Your task to perform on an android device: empty trash in the gmail app Image 0: 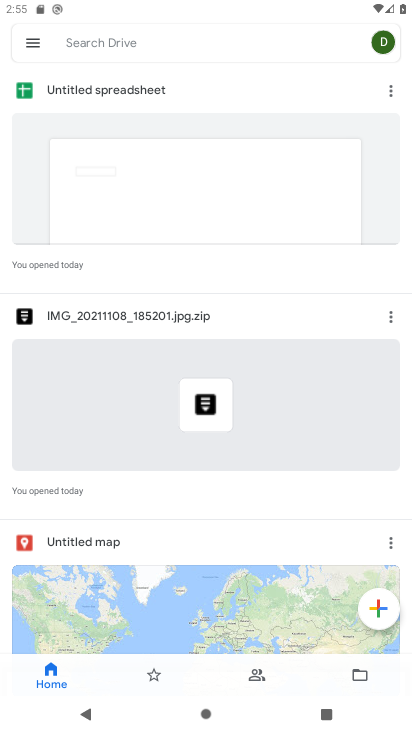
Step 0: press home button
Your task to perform on an android device: empty trash in the gmail app Image 1: 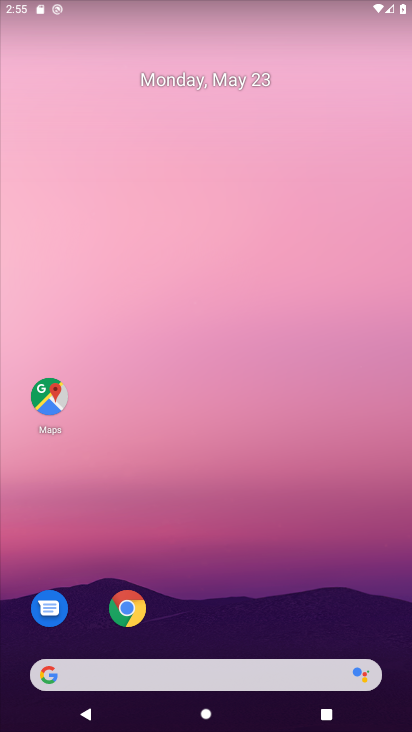
Step 1: drag from (212, 168) to (248, 43)
Your task to perform on an android device: empty trash in the gmail app Image 2: 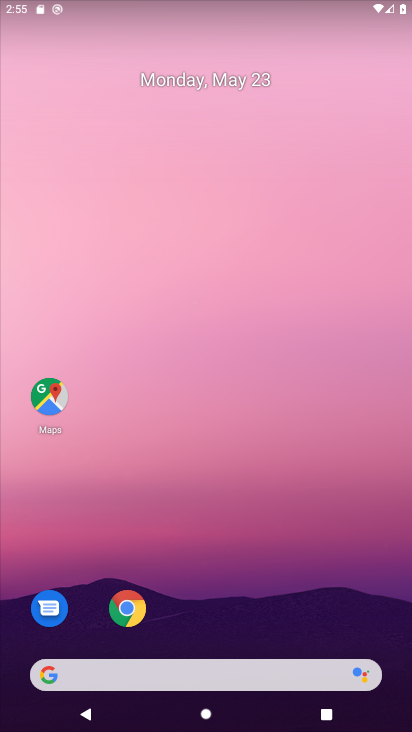
Step 2: drag from (237, 640) to (192, 78)
Your task to perform on an android device: empty trash in the gmail app Image 3: 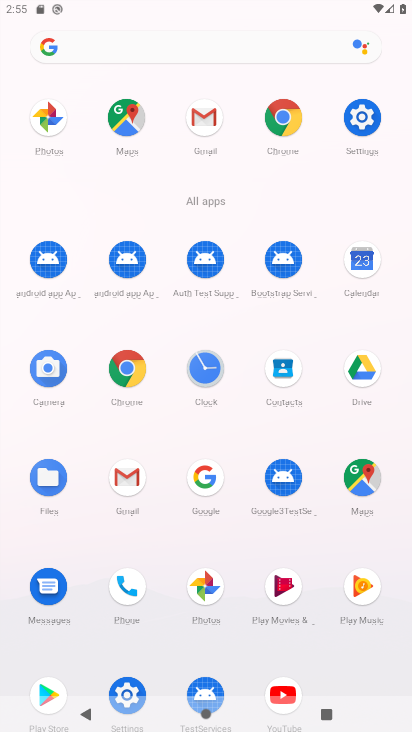
Step 3: click (214, 139)
Your task to perform on an android device: empty trash in the gmail app Image 4: 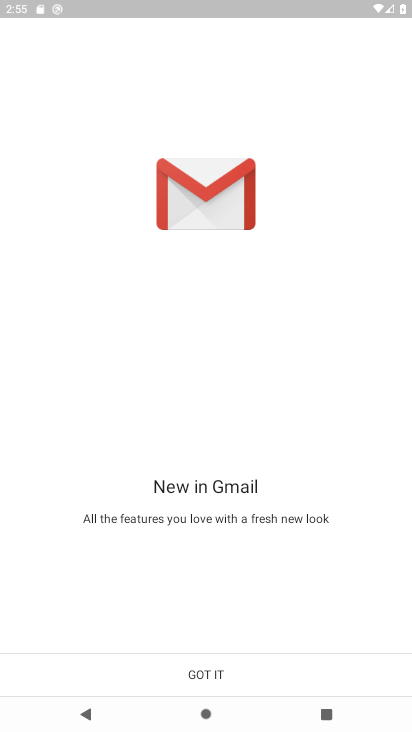
Step 4: click (215, 668)
Your task to perform on an android device: empty trash in the gmail app Image 5: 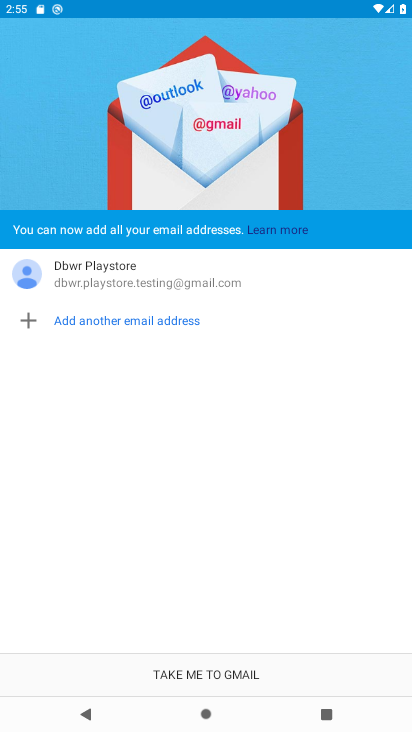
Step 5: click (215, 668)
Your task to perform on an android device: empty trash in the gmail app Image 6: 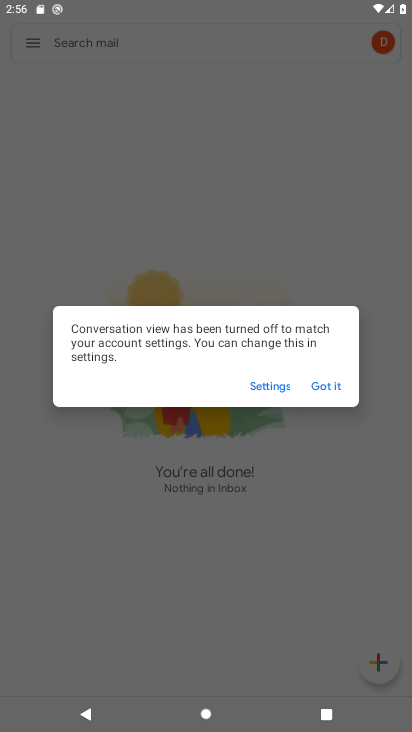
Step 6: click (334, 388)
Your task to perform on an android device: empty trash in the gmail app Image 7: 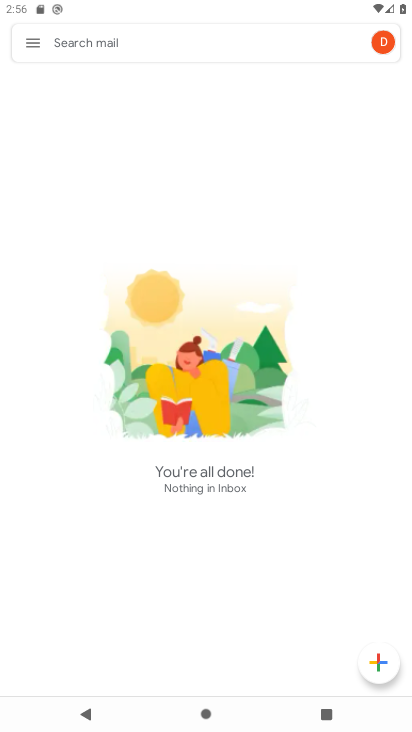
Step 7: click (30, 44)
Your task to perform on an android device: empty trash in the gmail app Image 8: 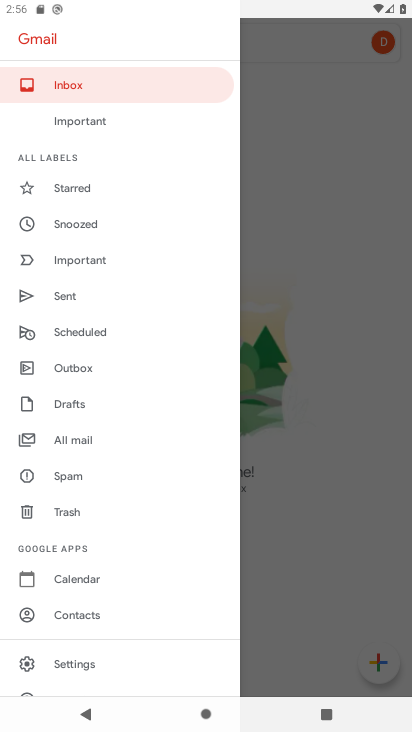
Step 8: click (76, 515)
Your task to perform on an android device: empty trash in the gmail app Image 9: 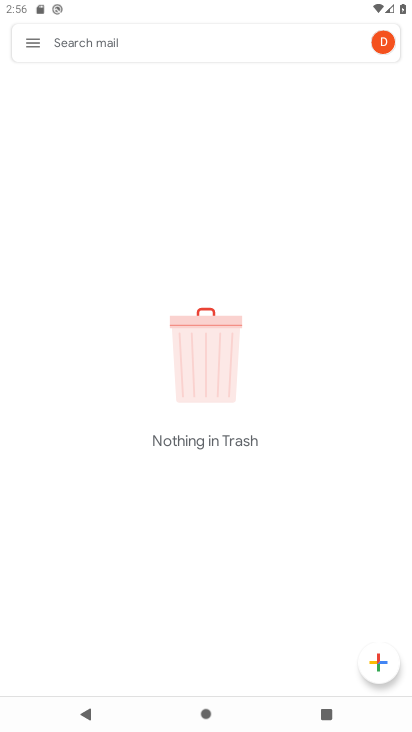
Step 9: task complete